Your task to perform on an android device: Search for pizza restaurants on Maps Image 0: 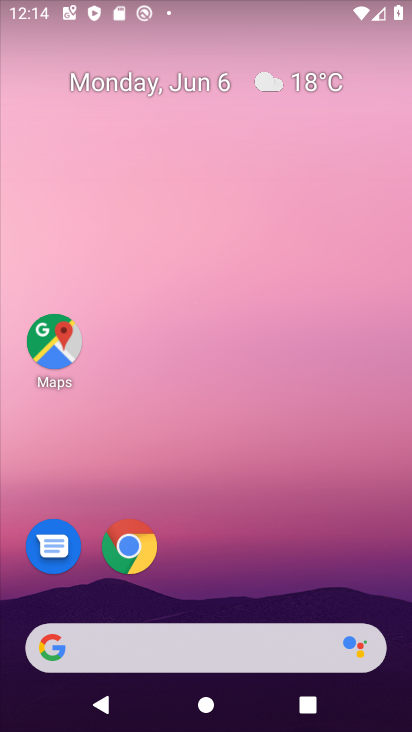
Step 0: click (51, 340)
Your task to perform on an android device: Search for pizza restaurants on Maps Image 1: 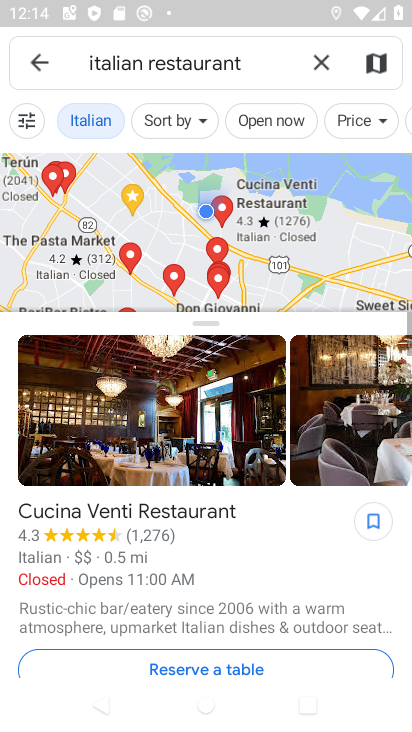
Step 1: click (323, 63)
Your task to perform on an android device: Search for pizza restaurants on Maps Image 2: 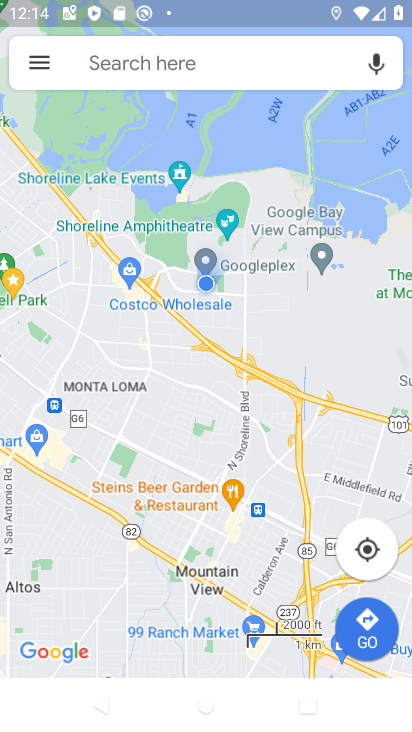
Step 2: click (163, 61)
Your task to perform on an android device: Search for pizza restaurants on Maps Image 3: 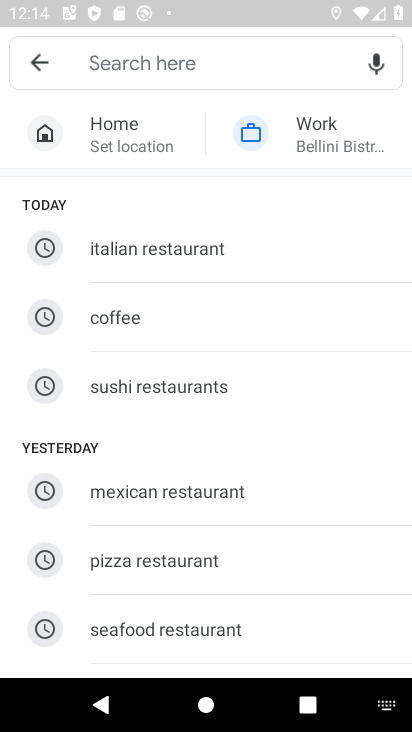
Step 3: click (137, 550)
Your task to perform on an android device: Search for pizza restaurants on Maps Image 4: 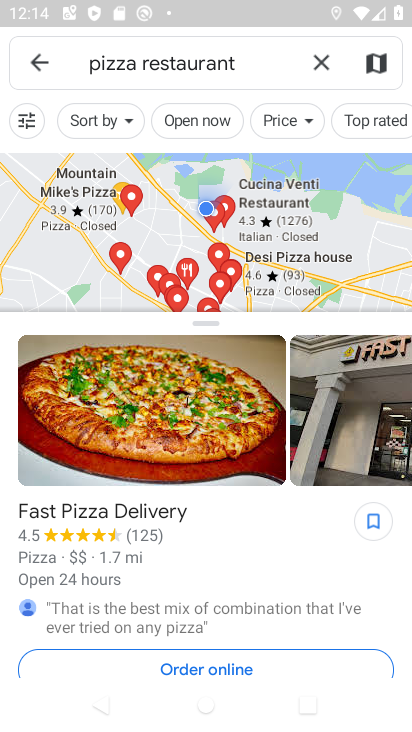
Step 4: task complete